Your task to perform on an android device: toggle data saver in the chrome app Image 0: 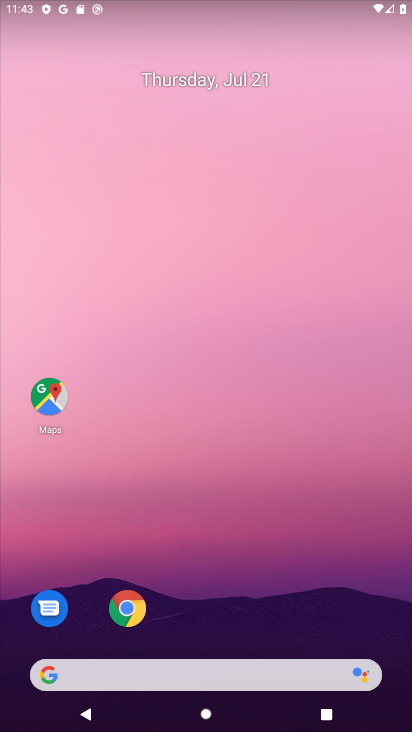
Step 0: click (129, 601)
Your task to perform on an android device: toggle data saver in the chrome app Image 1: 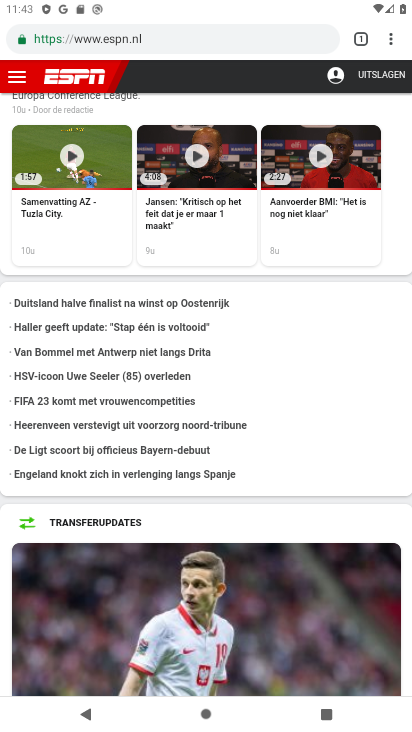
Step 1: click (388, 39)
Your task to perform on an android device: toggle data saver in the chrome app Image 2: 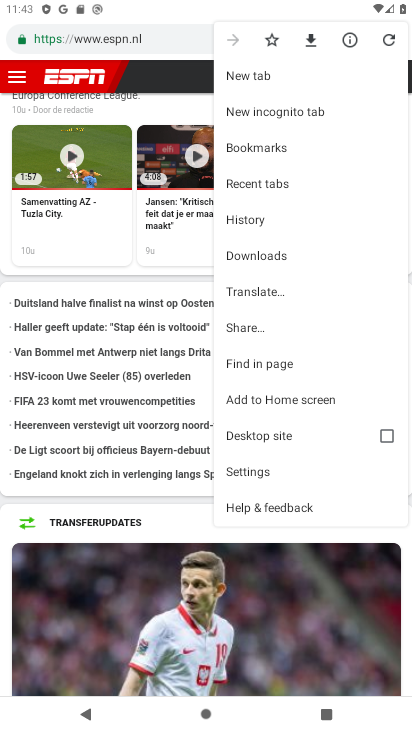
Step 2: click (285, 462)
Your task to perform on an android device: toggle data saver in the chrome app Image 3: 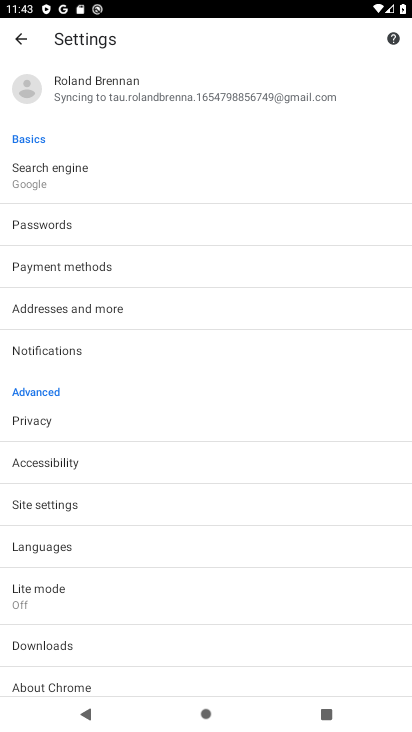
Step 3: click (71, 601)
Your task to perform on an android device: toggle data saver in the chrome app Image 4: 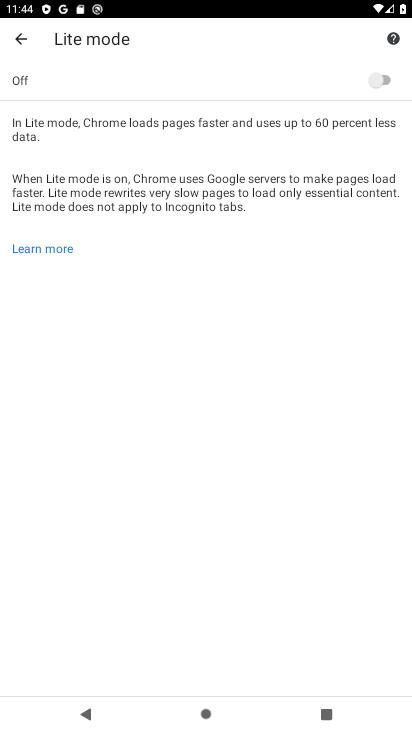
Step 4: click (386, 80)
Your task to perform on an android device: toggle data saver in the chrome app Image 5: 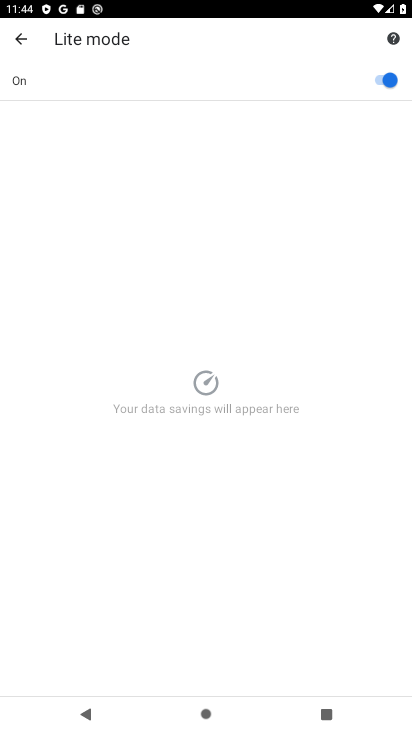
Step 5: task complete